Your task to perform on an android device: Open ESPN.com Image 0: 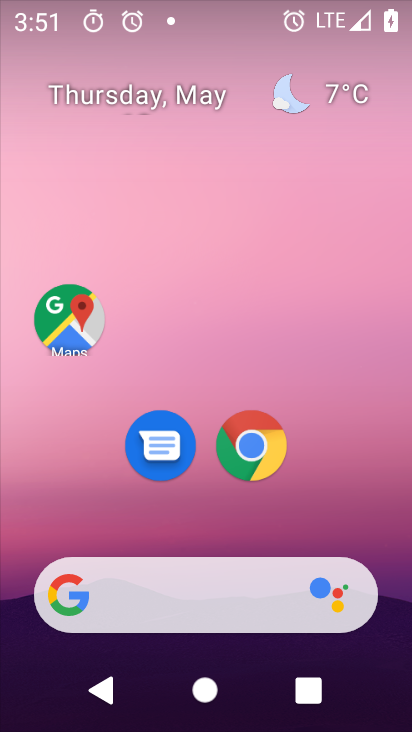
Step 0: click (255, 459)
Your task to perform on an android device: Open ESPN.com Image 1: 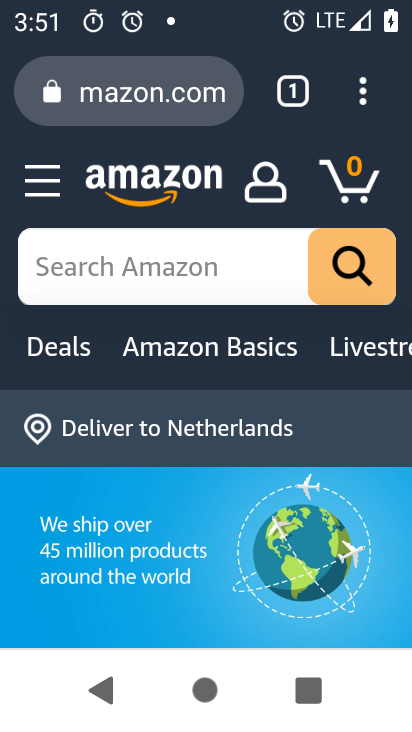
Step 1: click (125, 103)
Your task to perform on an android device: Open ESPN.com Image 2: 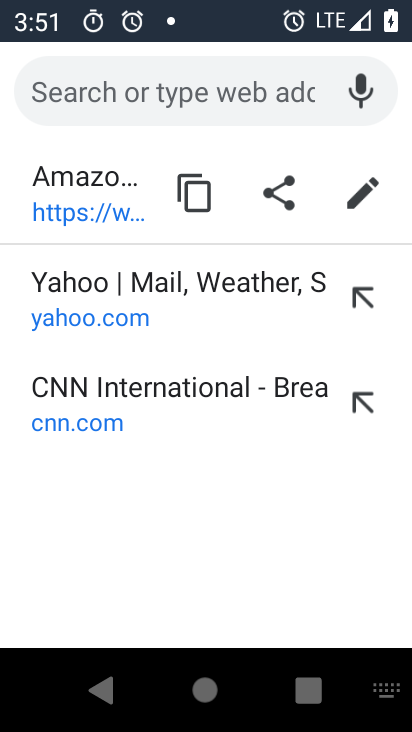
Step 2: type "espn.com"
Your task to perform on an android device: Open ESPN.com Image 3: 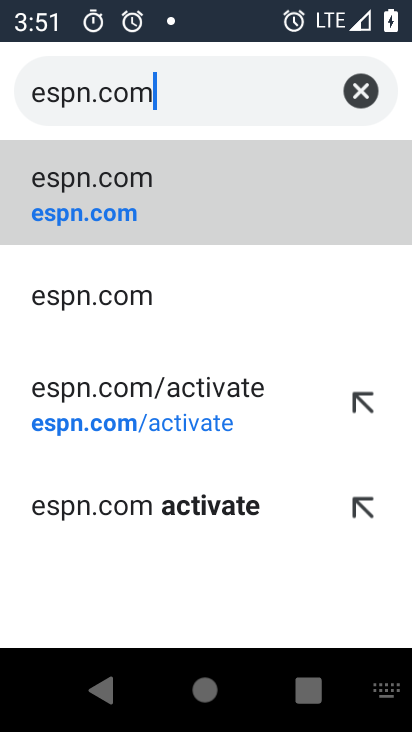
Step 3: click (121, 201)
Your task to perform on an android device: Open ESPN.com Image 4: 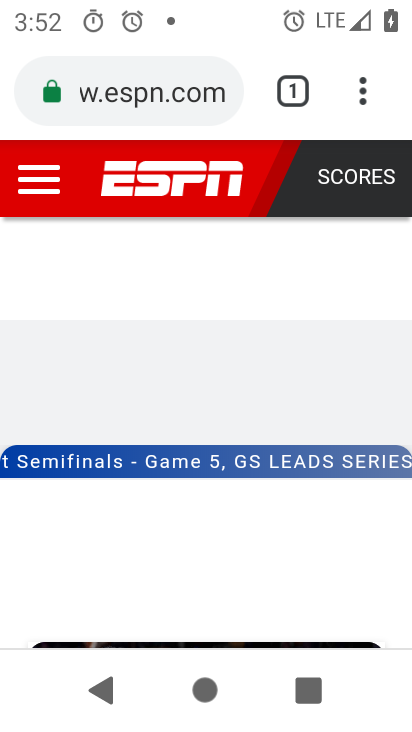
Step 4: task complete